Your task to perform on an android device: change the clock display to show seconds Image 0: 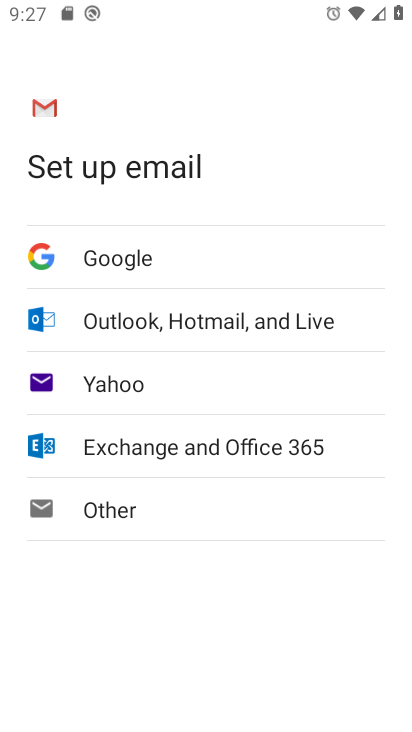
Step 0: press home button
Your task to perform on an android device: change the clock display to show seconds Image 1: 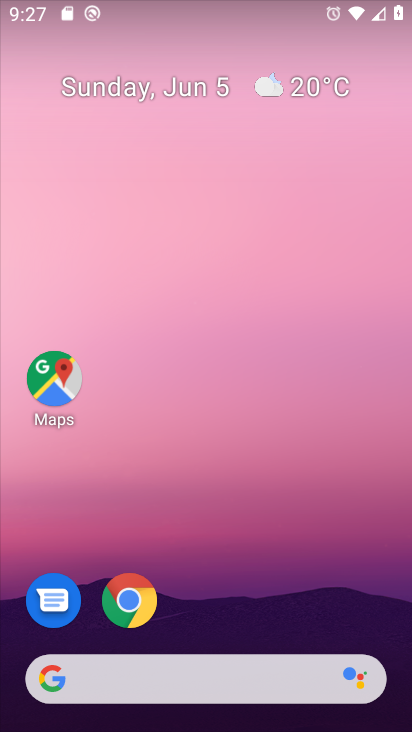
Step 1: drag from (252, 575) to (293, 16)
Your task to perform on an android device: change the clock display to show seconds Image 2: 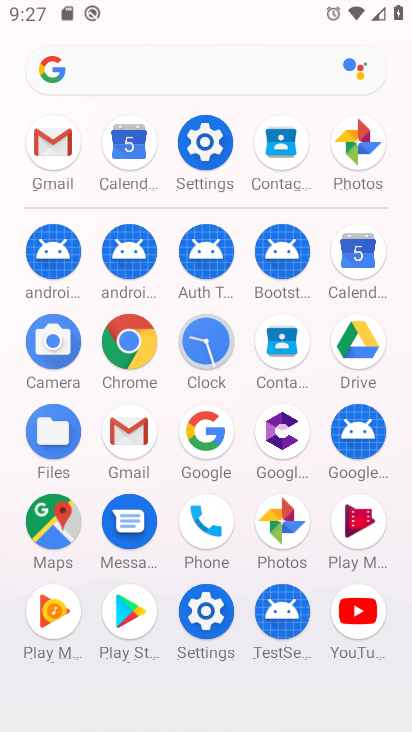
Step 2: click (221, 343)
Your task to perform on an android device: change the clock display to show seconds Image 3: 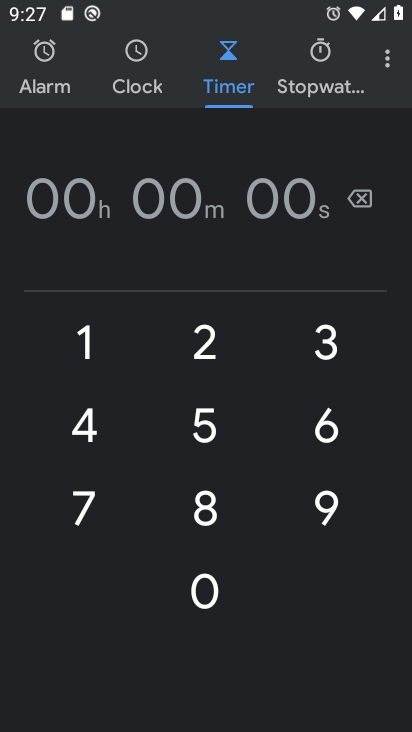
Step 3: click (382, 64)
Your task to perform on an android device: change the clock display to show seconds Image 4: 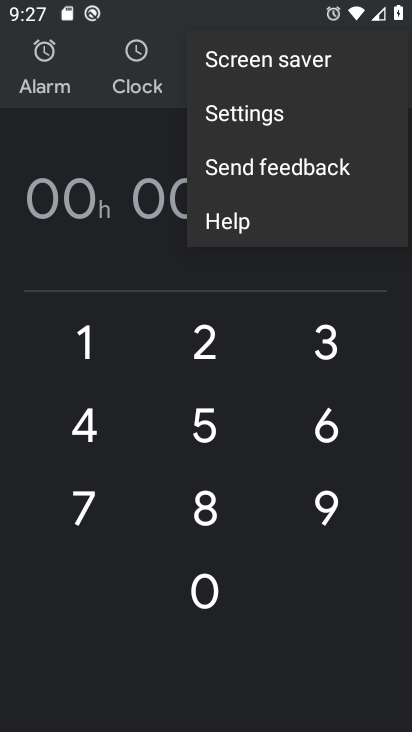
Step 4: click (317, 113)
Your task to perform on an android device: change the clock display to show seconds Image 5: 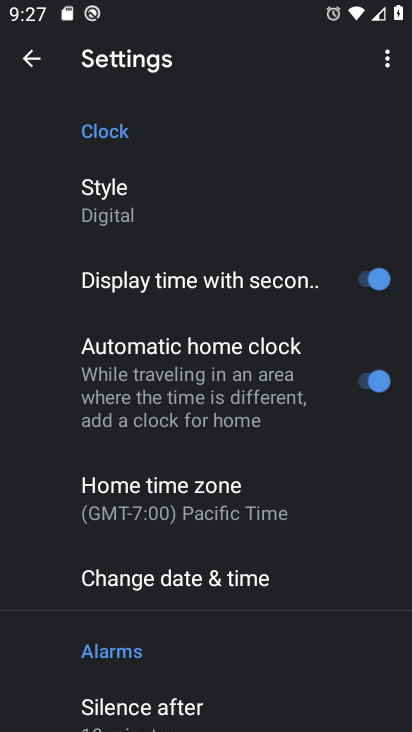
Step 5: click (33, 71)
Your task to perform on an android device: change the clock display to show seconds Image 6: 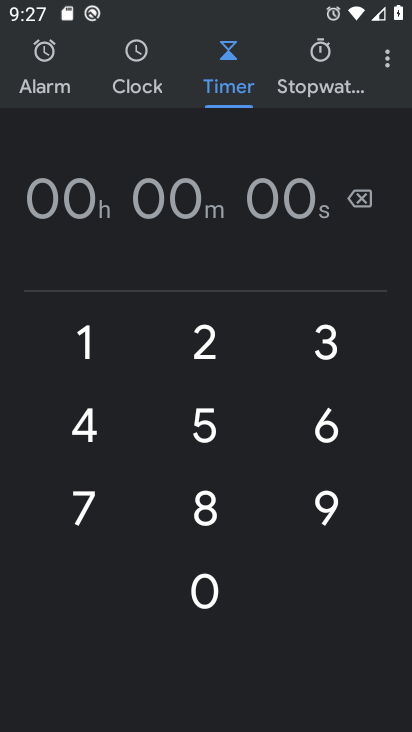
Step 6: click (132, 58)
Your task to perform on an android device: change the clock display to show seconds Image 7: 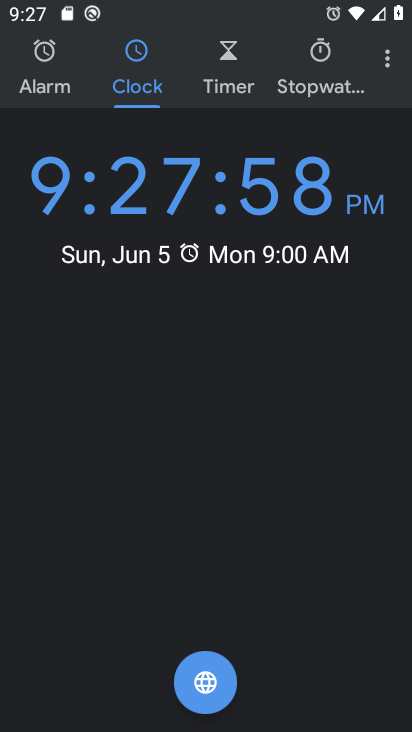
Step 7: task complete